Your task to perform on an android device: turn on data saver in the chrome app Image 0: 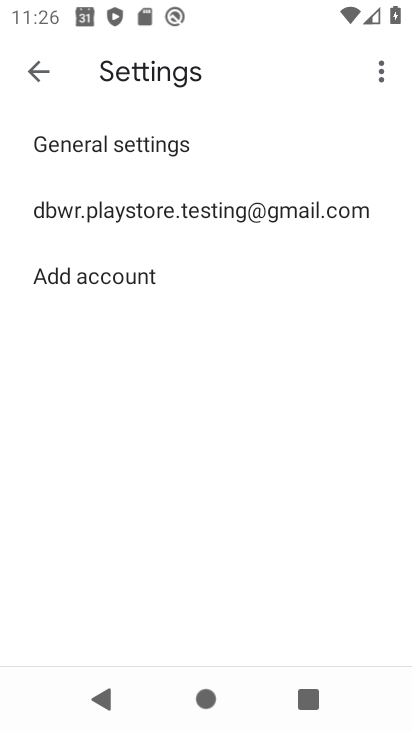
Step 0: press home button
Your task to perform on an android device: turn on data saver in the chrome app Image 1: 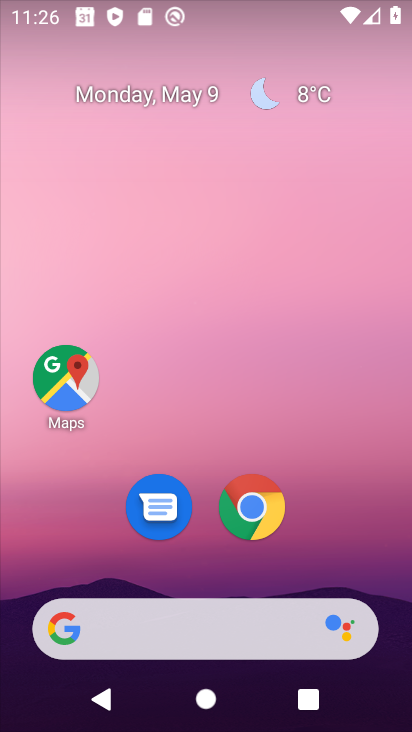
Step 1: click (244, 504)
Your task to perform on an android device: turn on data saver in the chrome app Image 2: 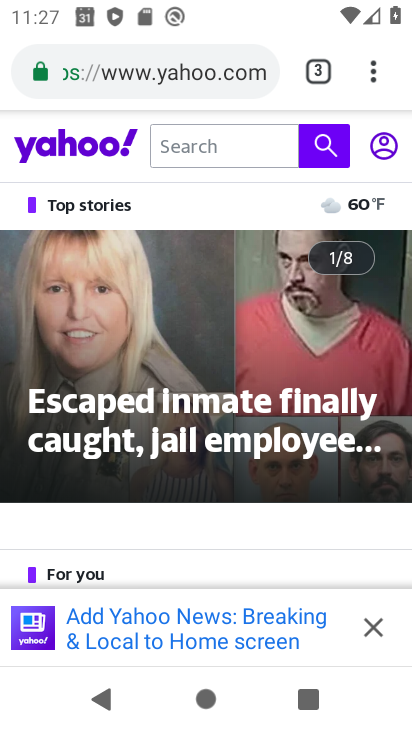
Step 2: click (380, 78)
Your task to perform on an android device: turn on data saver in the chrome app Image 3: 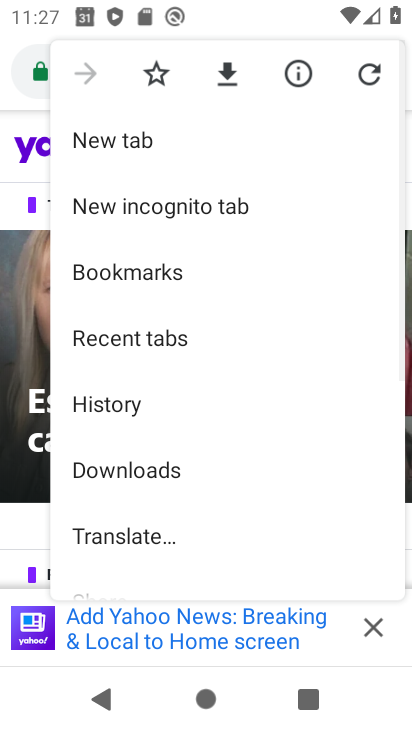
Step 3: drag from (211, 517) to (189, 194)
Your task to perform on an android device: turn on data saver in the chrome app Image 4: 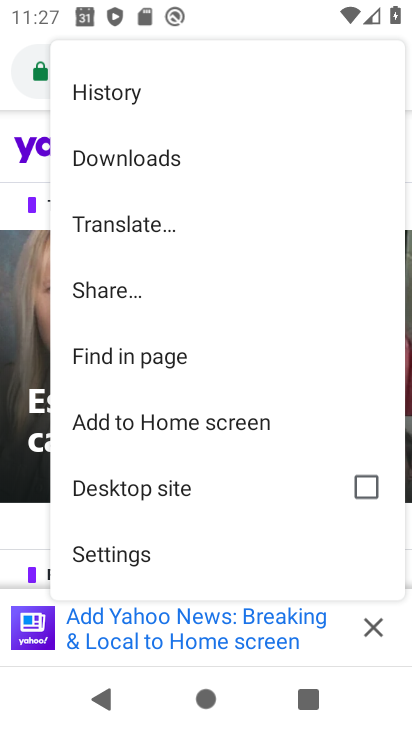
Step 4: click (182, 555)
Your task to perform on an android device: turn on data saver in the chrome app Image 5: 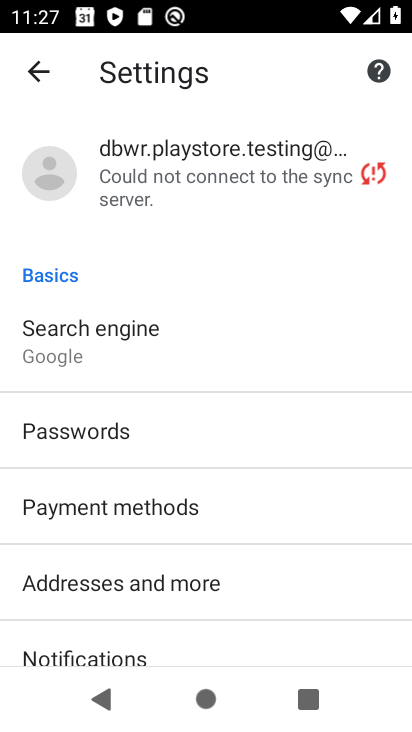
Step 5: drag from (208, 581) to (205, 240)
Your task to perform on an android device: turn on data saver in the chrome app Image 6: 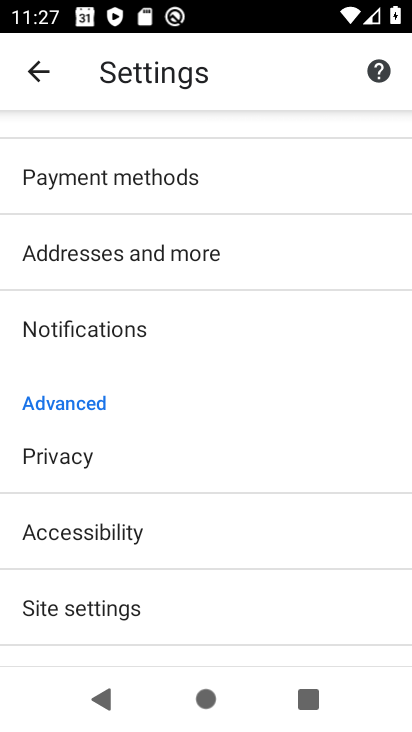
Step 6: drag from (174, 581) to (162, 340)
Your task to perform on an android device: turn on data saver in the chrome app Image 7: 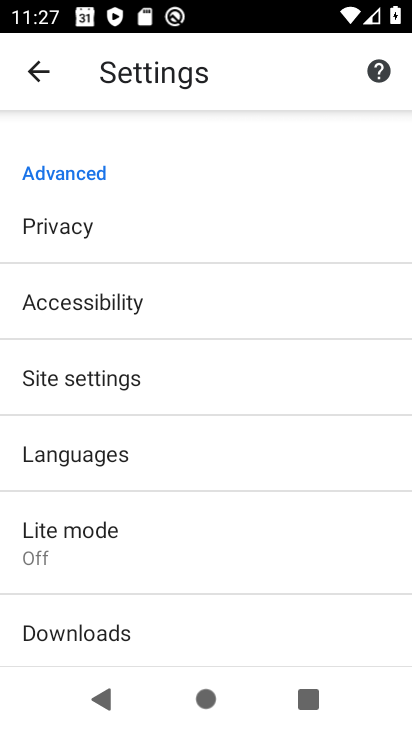
Step 7: click (61, 531)
Your task to perform on an android device: turn on data saver in the chrome app Image 8: 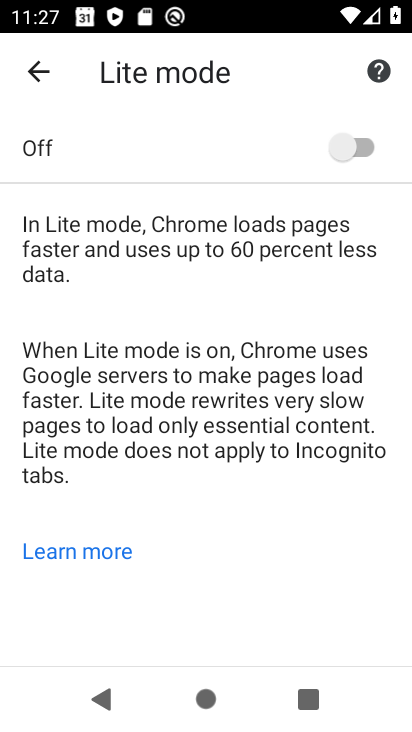
Step 8: click (369, 144)
Your task to perform on an android device: turn on data saver in the chrome app Image 9: 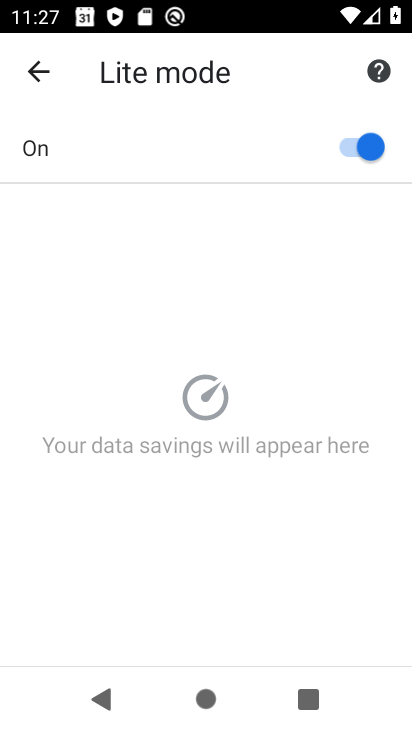
Step 9: task complete